Your task to perform on an android device: toggle notifications settings in the gmail app Image 0: 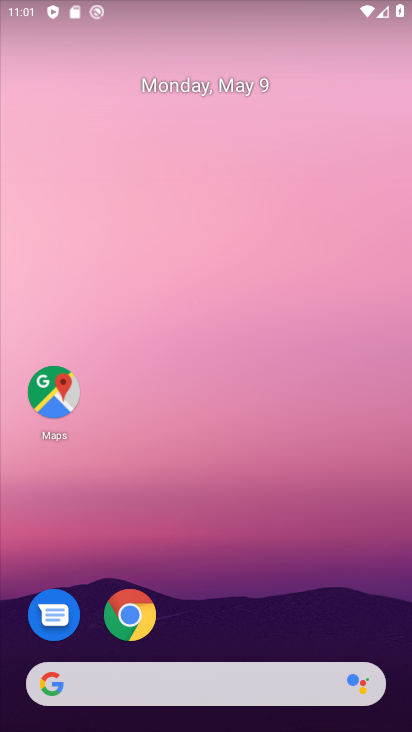
Step 0: click (220, 178)
Your task to perform on an android device: toggle notifications settings in the gmail app Image 1: 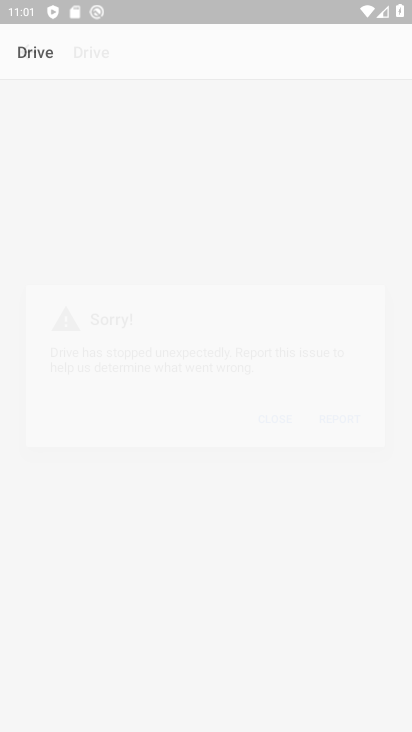
Step 1: drag from (222, 721) to (218, 393)
Your task to perform on an android device: toggle notifications settings in the gmail app Image 2: 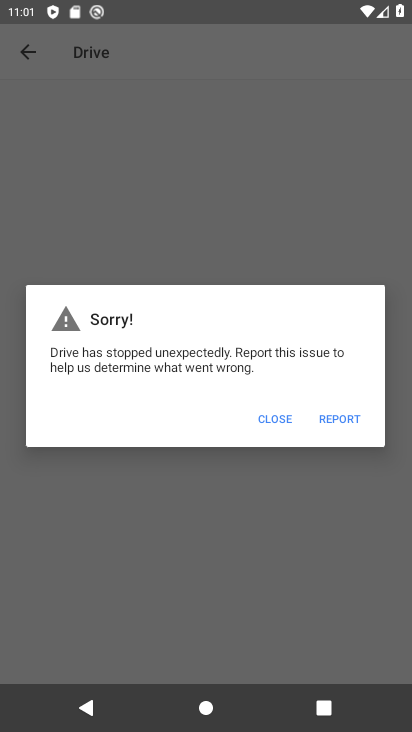
Step 2: click (214, 207)
Your task to perform on an android device: toggle notifications settings in the gmail app Image 3: 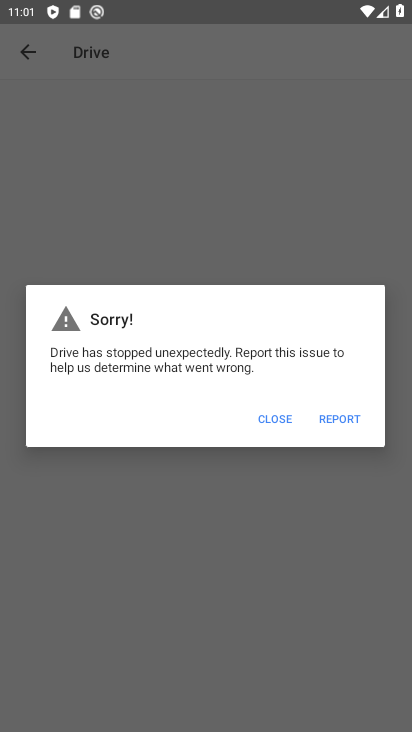
Step 3: press home button
Your task to perform on an android device: toggle notifications settings in the gmail app Image 4: 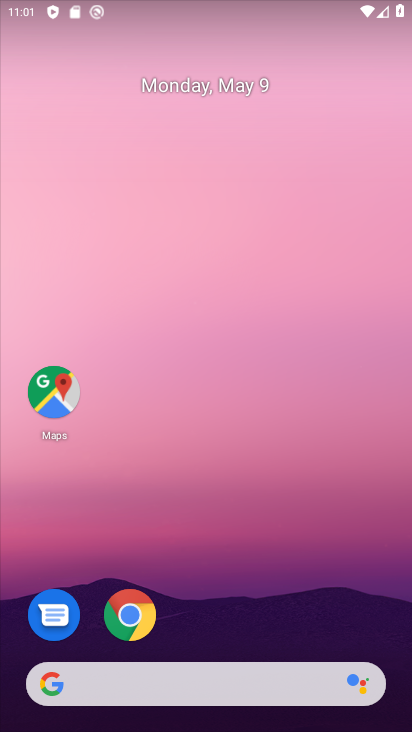
Step 4: drag from (217, 700) to (217, 531)
Your task to perform on an android device: toggle notifications settings in the gmail app Image 5: 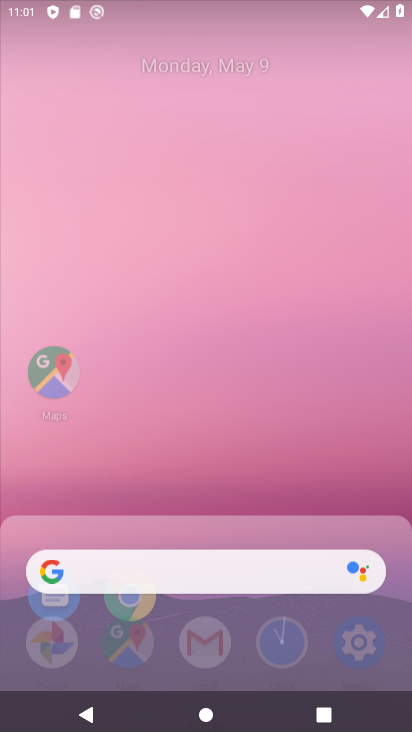
Step 5: click (217, 114)
Your task to perform on an android device: toggle notifications settings in the gmail app Image 6: 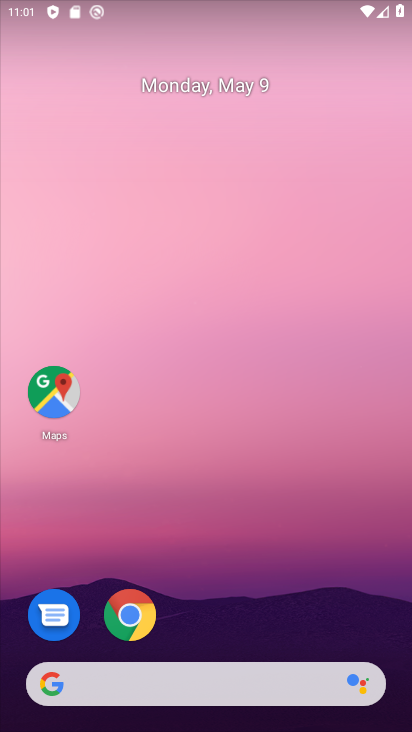
Step 6: drag from (221, 731) to (223, 586)
Your task to perform on an android device: toggle notifications settings in the gmail app Image 7: 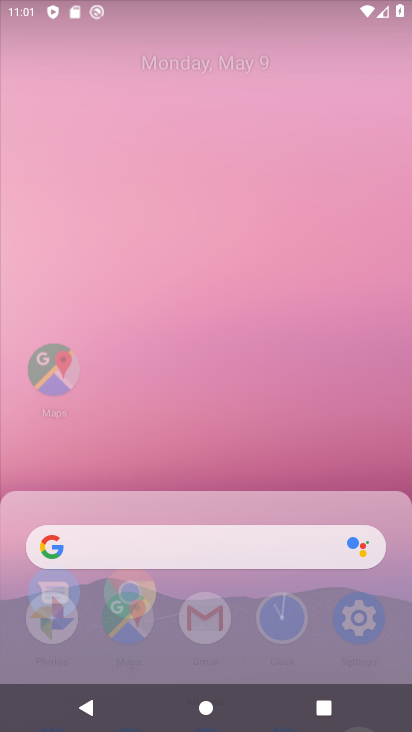
Step 7: drag from (223, 109) to (223, 32)
Your task to perform on an android device: toggle notifications settings in the gmail app Image 8: 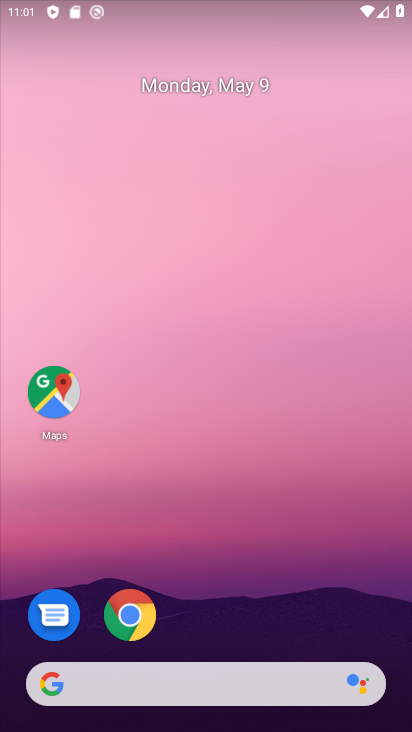
Step 8: drag from (220, 726) to (208, 55)
Your task to perform on an android device: toggle notifications settings in the gmail app Image 9: 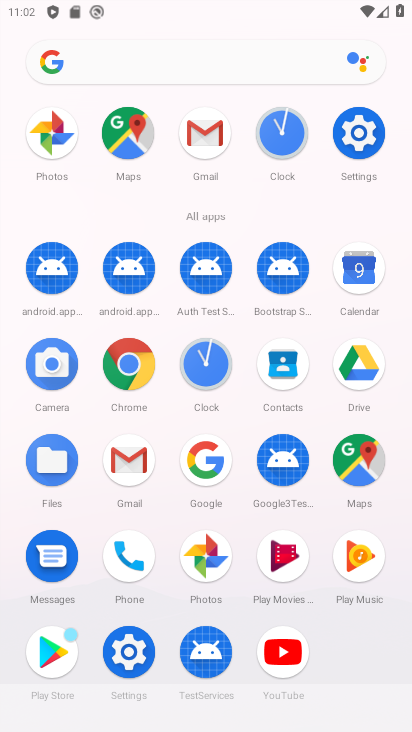
Step 9: click (130, 460)
Your task to perform on an android device: toggle notifications settings in the gmail app Image 10: 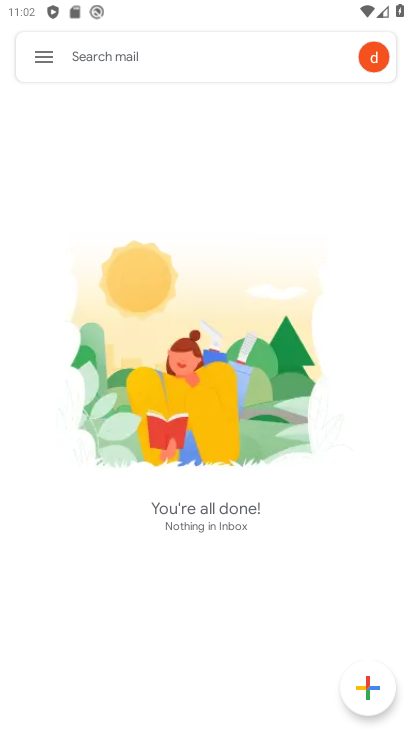
Step 10: click (41, 49)
Your task to perform on an android device: toggle notifications settings in the gmail app Image 11: 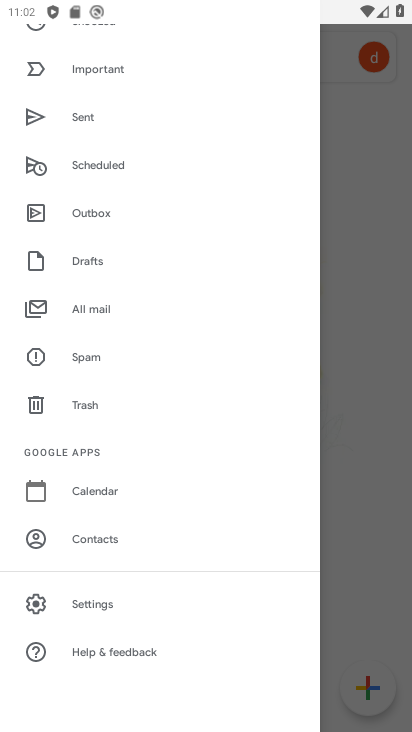
Step 11: click (97, 603)
Your task to perform on an android device: toggle notifications settings in the gmail app Image 12: 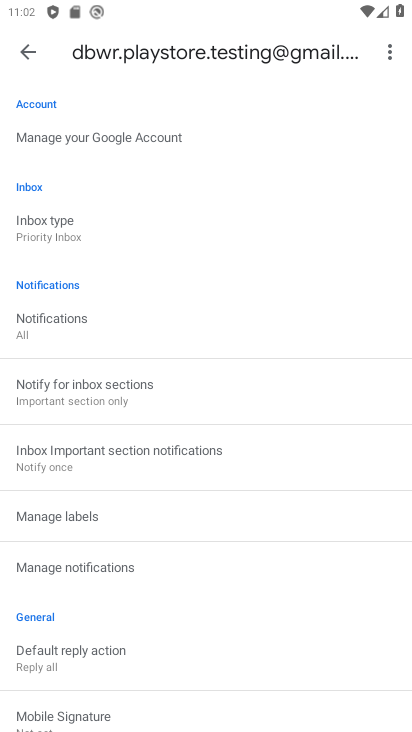
Step 12: click (70, 318)
Your task to perform on an android device: toggle notifications settings in the gmail app Image 13: 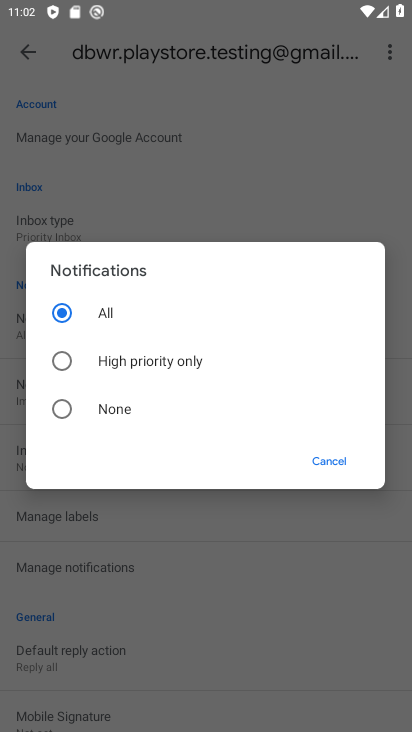
Step 13: click (55, 362)
Your task to perform on an android device: toggle notifications settings in the gmail app Image 14: 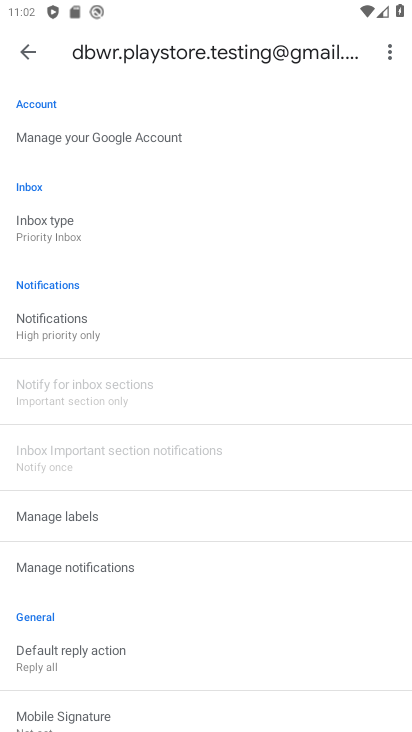
Step 14: task complete